Your task to perform on an android device: Open Google Chrome and click the shortcut for Amazon.com Image 0: 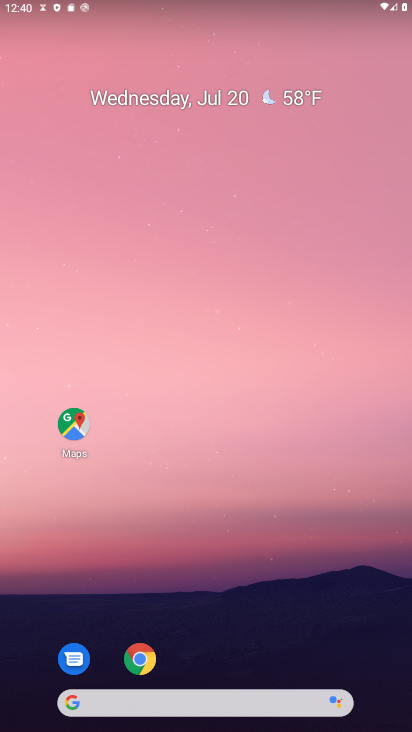
Step 0: click (139, 655)
Your task to perform on an android device: Open Google Chrome and click the shortcut for Amazon.com Image 1: 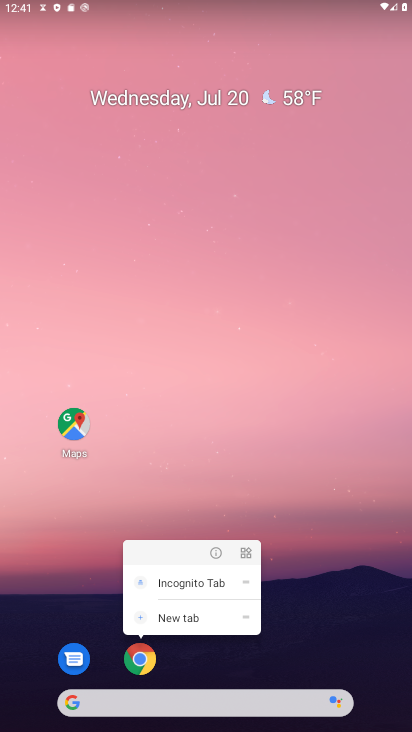
Step 1: click (139, 657)
Your task to perform on an android device: Open Google Chrome and click the shortcut for Amazon.com Image 2: 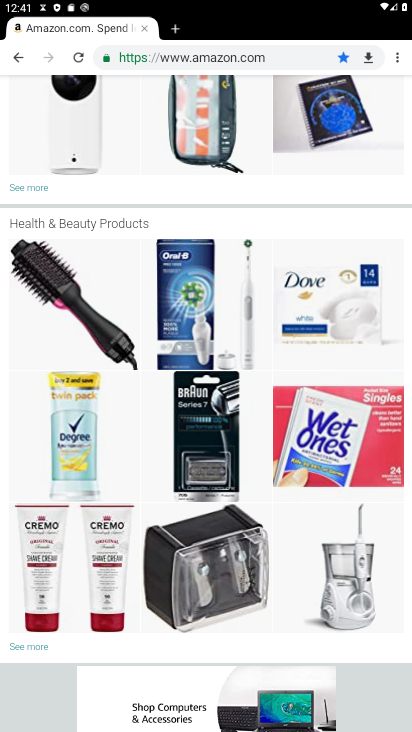
Step 2: task complete